Your task to perform on an android device: Open Chrome and go to settings Image 0: 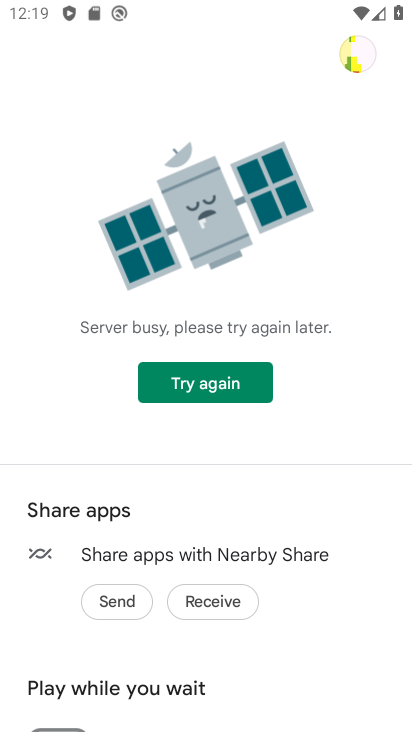
Step 0: press back button
Your task to perform on an android device: Open Chrome and go to settings Image 1: 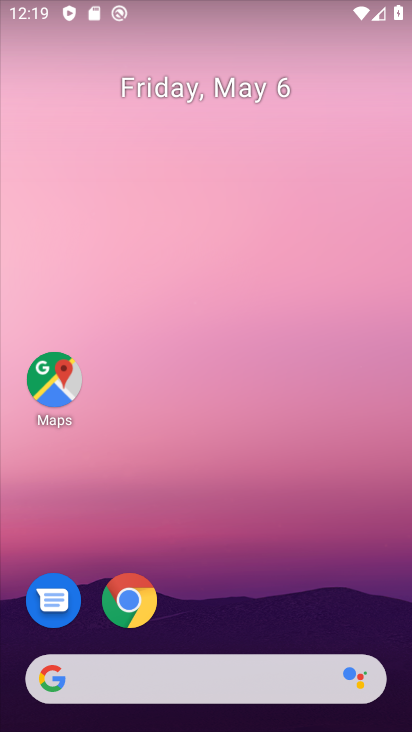
Step 1: click (136, 622)
Your task to perform on an android device: Open Chrome and go to settings Image 2: 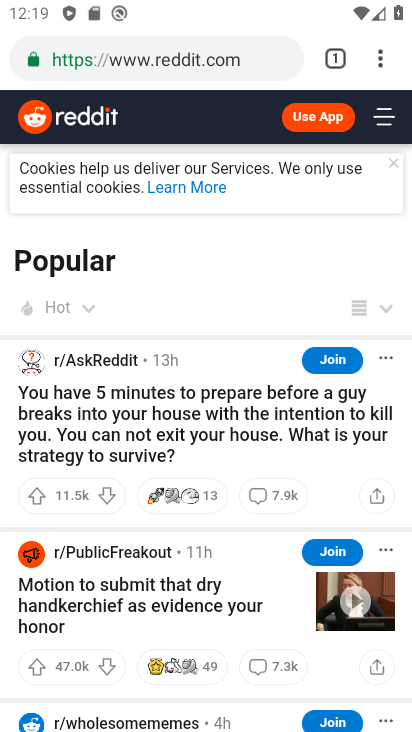
Step 2: task complete